Your task to perform on an android device: all mails in gmail Image 0: 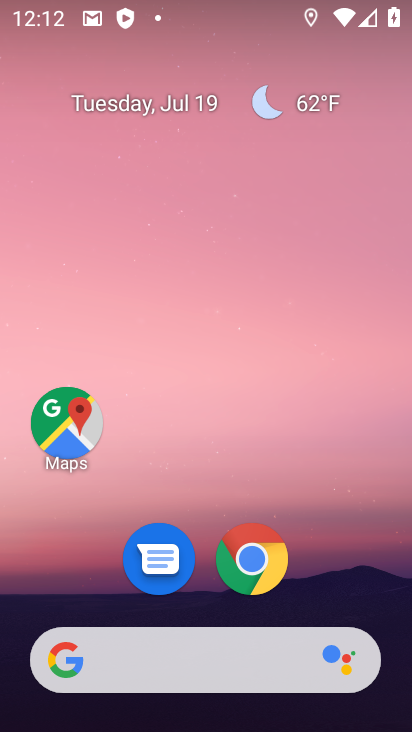
Step 0: drag from (262, 193) to (265, 93)
Your task to perform on an android device: all mails in gmail Image 1: 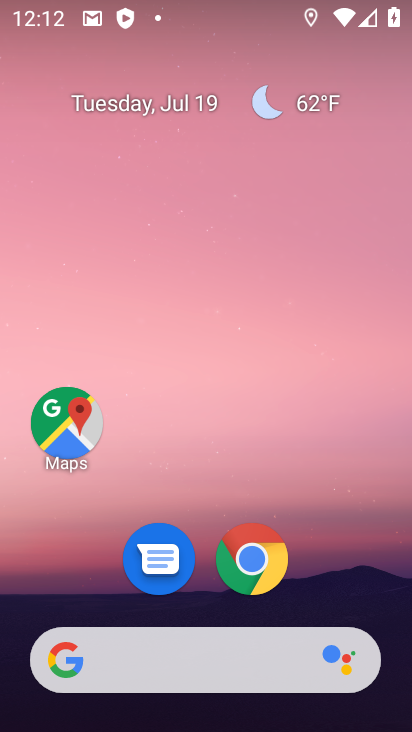
Step 1: drag from (209, 622) to (305, 159)
Your task to perform on an android device: all mails in gmail Image 2: 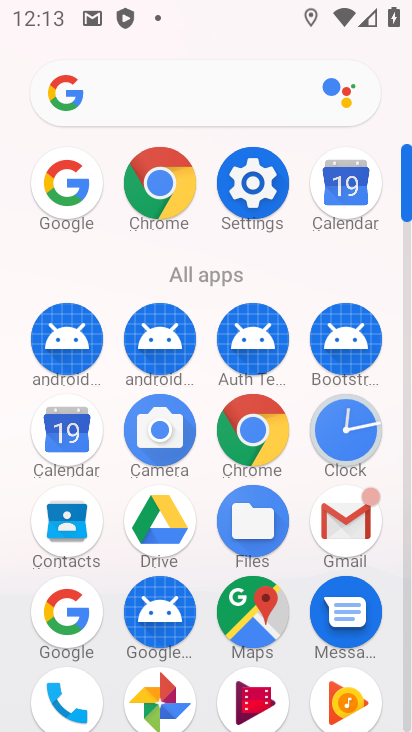
Step 2: click (357, 523)
Your task to perform on an android device: all mails in gmail Image 3: 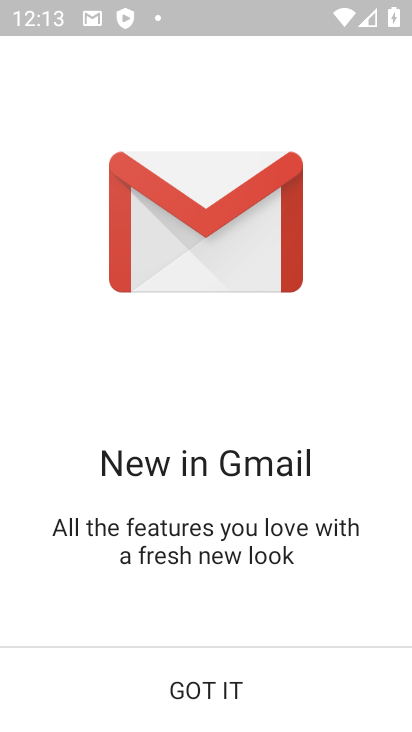
Step 3: click (168, 684)
Your task to perform on an android device: all mails in gmail Image 4: 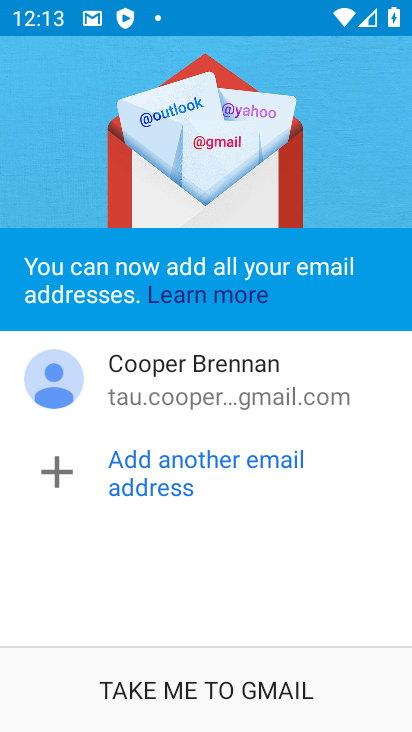
Step 4: click (182, 696)
Your task to perform on an android device: all mails in gmail Image 5: 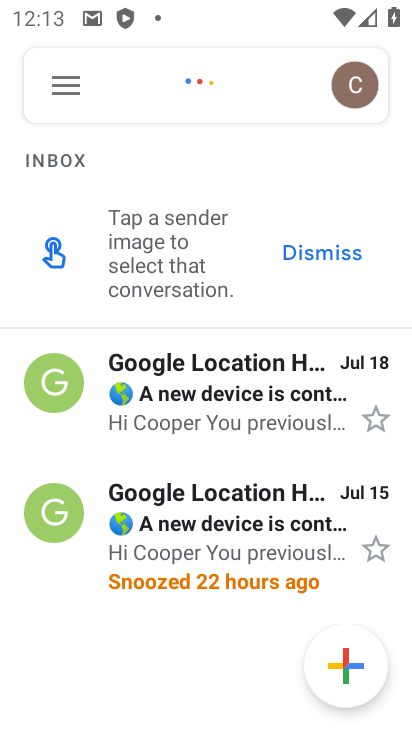
Step 5: click (66, 97)
Your task to perform on an android device: all mails in gmail Image 6: 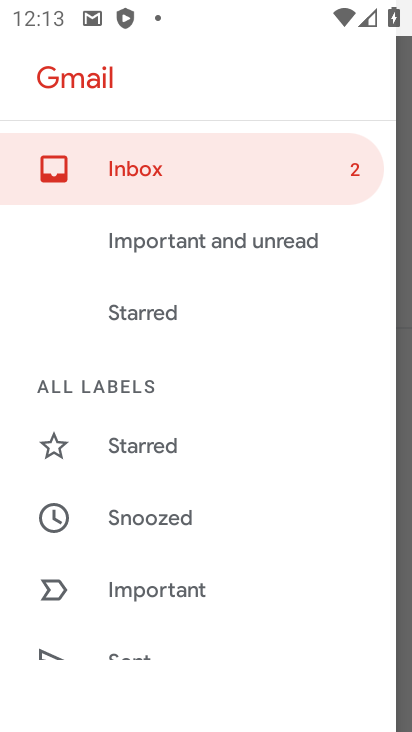
Step 6: drag from (145, 554) to (252, 176)
Your task to perform on an android device: all mails in gmail Image 7: 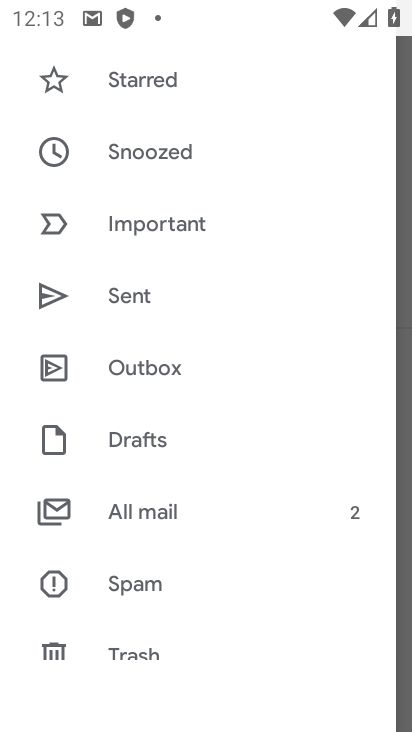
Step 7: click (194, 510)
Your task to perform on an android device: all mails in gmail Image 8: 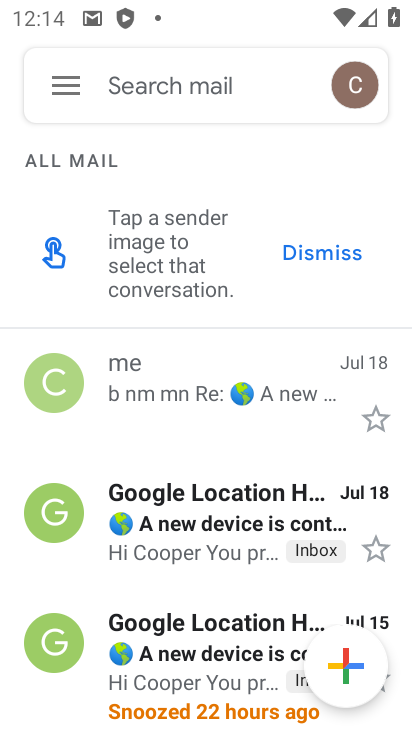
Step 8: task complete